Your task to perform on an android device: change the clock style Image 0: 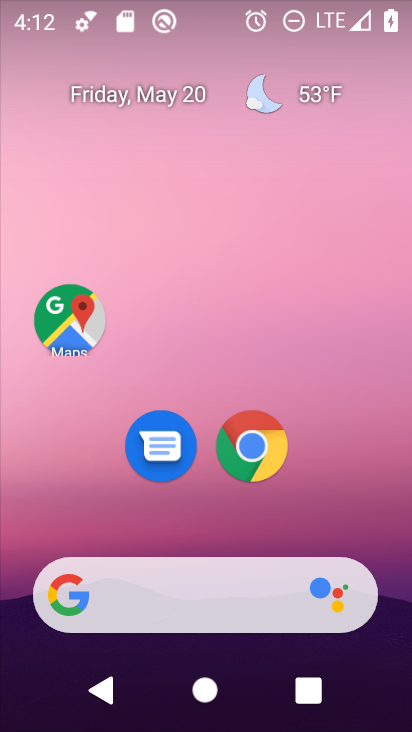
Step 0: drag from (355, 484) to (350, 83)
Your task to perform on an android device: change the clock style Image 1: 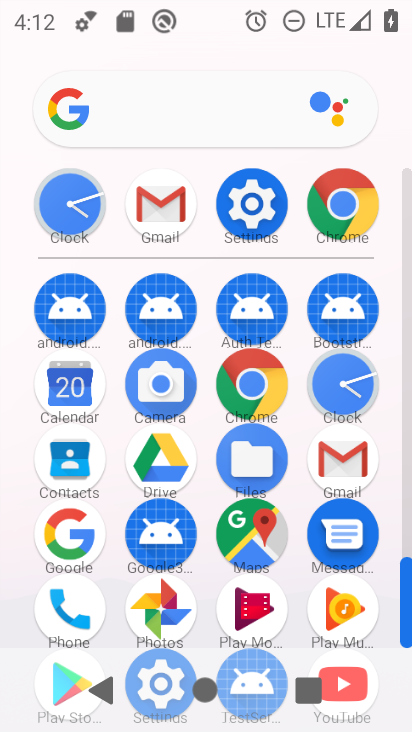
Step 1: click (355, 396)
Your task to perform on an android device: change the clock style Image 2: 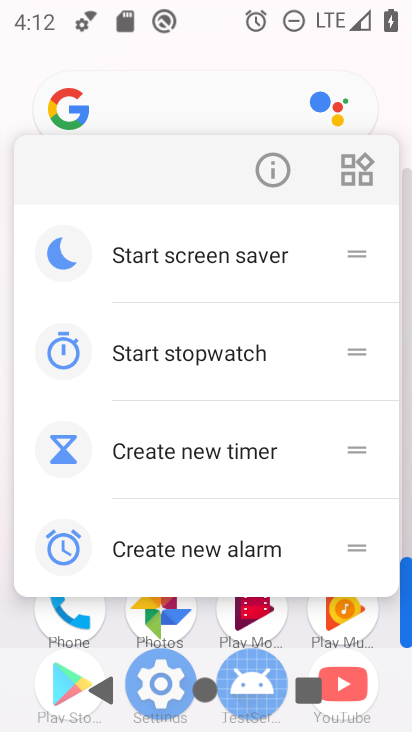
Step 2: press back button
Your task to perform on an android device: change the clock style Image 3: 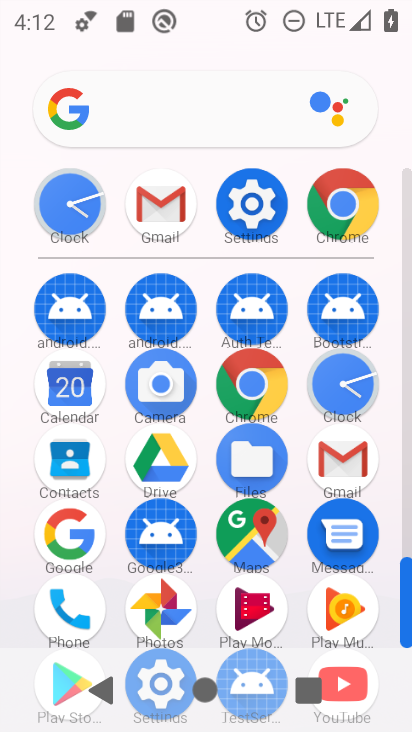
Step 3: click (345, 371)
Your task to perform on an android device: change the clock style Image 4: 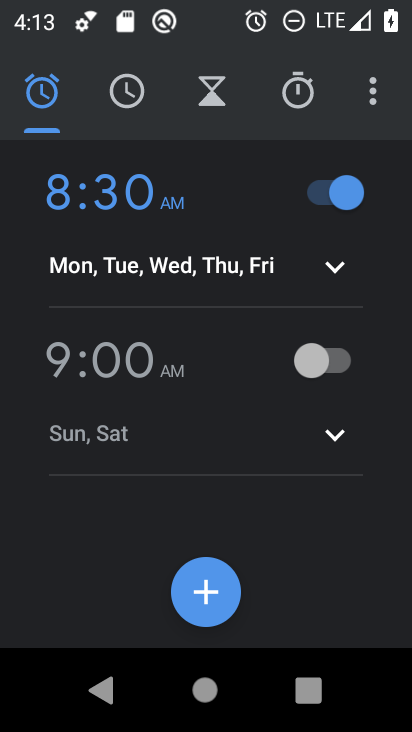
Step 4: click (353, 127)
Your task to perform on an android device: change the clock style Image 5: 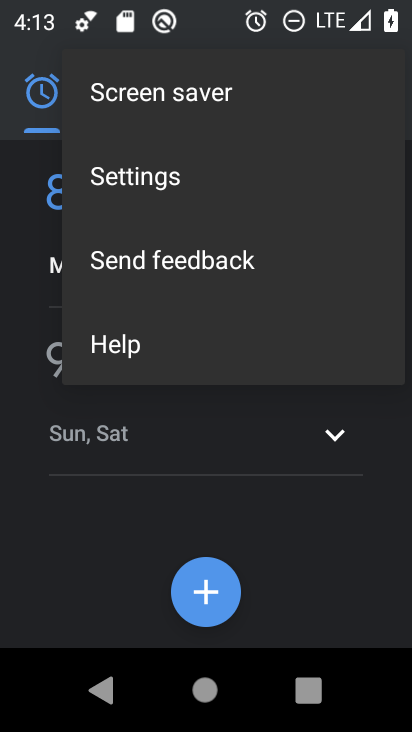
Step 5: click (175, 180)
Your task to perform on an android device: change the clock style Image 6: 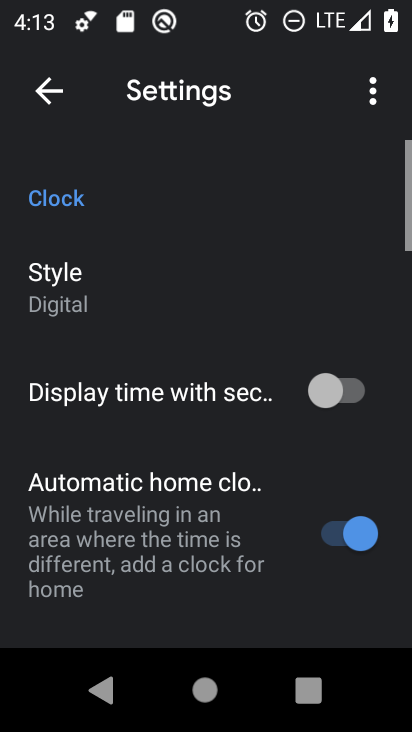
Step 6: click (96, 305)
Your task to perform on an android device: change the clock style Image 7: 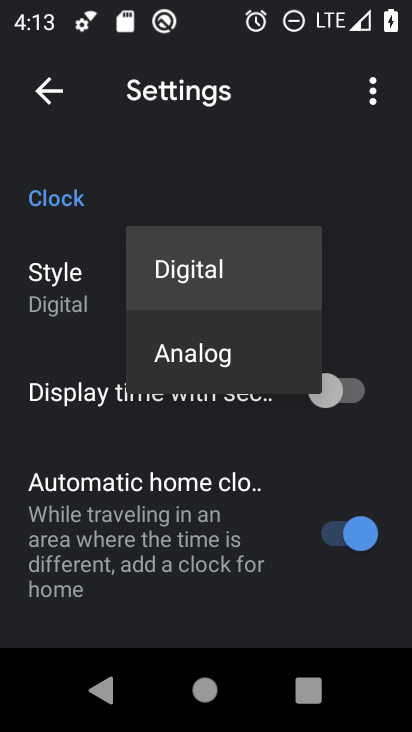
Step 7: click (191, 355)
Your task to perform on an android device: change the clock style Image 8: 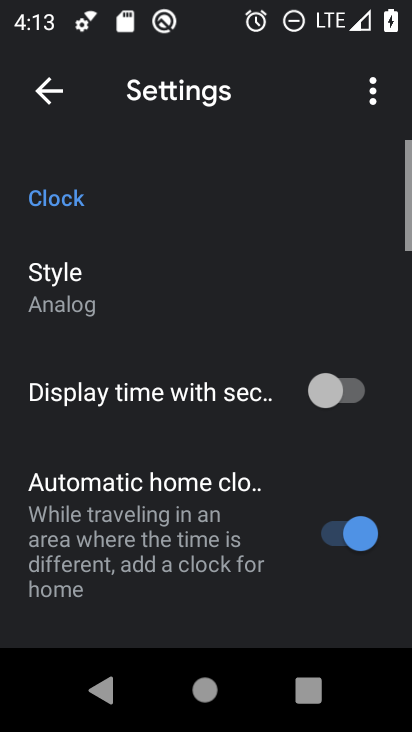
Step 8: task complete